Your task to perform on an android device: Open display settings Image 0: 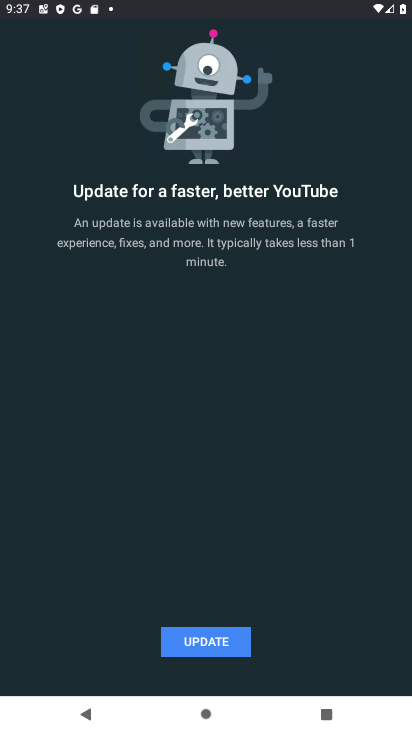
Step 0: press home button
Your task to perform on an android device: Open display settings Image 1: 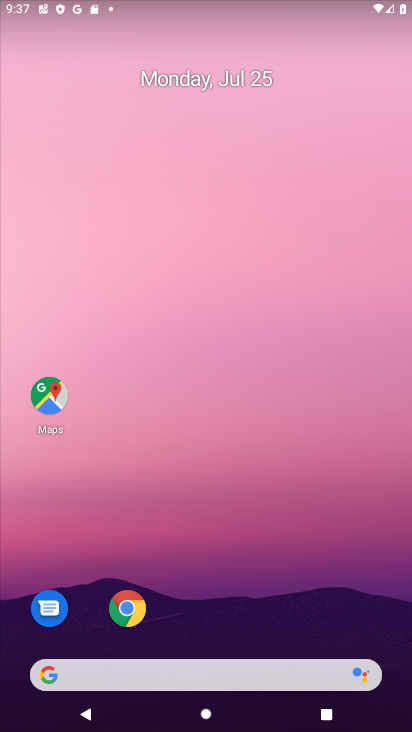
Step 1: drag from (228, 637) to (212, 256)
Your task to perform on an android device: Open display settings Image 2: 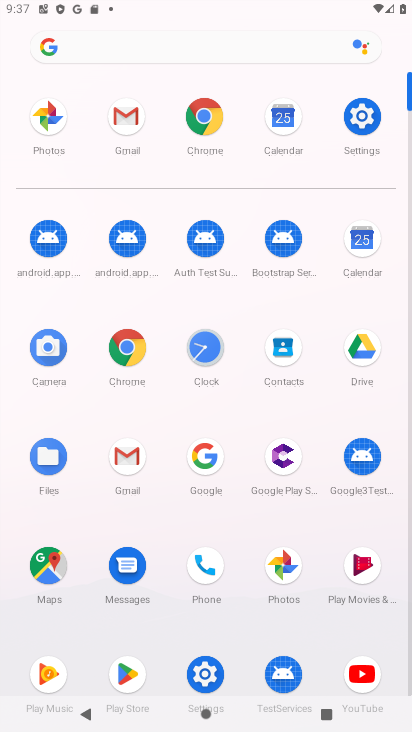
Step 2: click (371, 123)
Your task to perform on an android device: Open display settings Image 3: 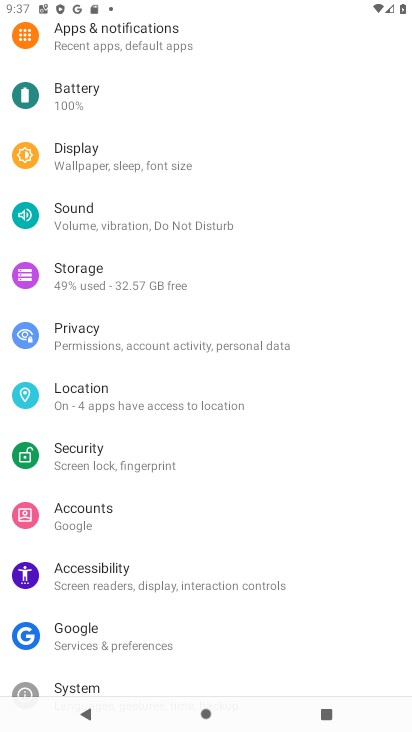
Step 3: click (105, 158)
Your task to perform on an android device: Open display settings Image 4: 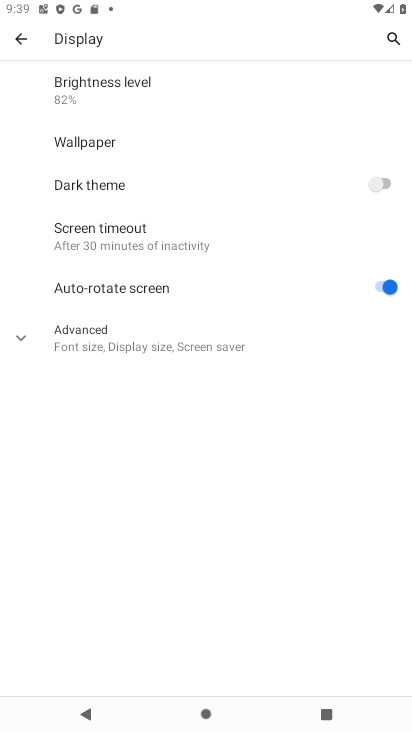
Step 4: task complete